Your task to perform on an android device: Open my contact list Image 0: 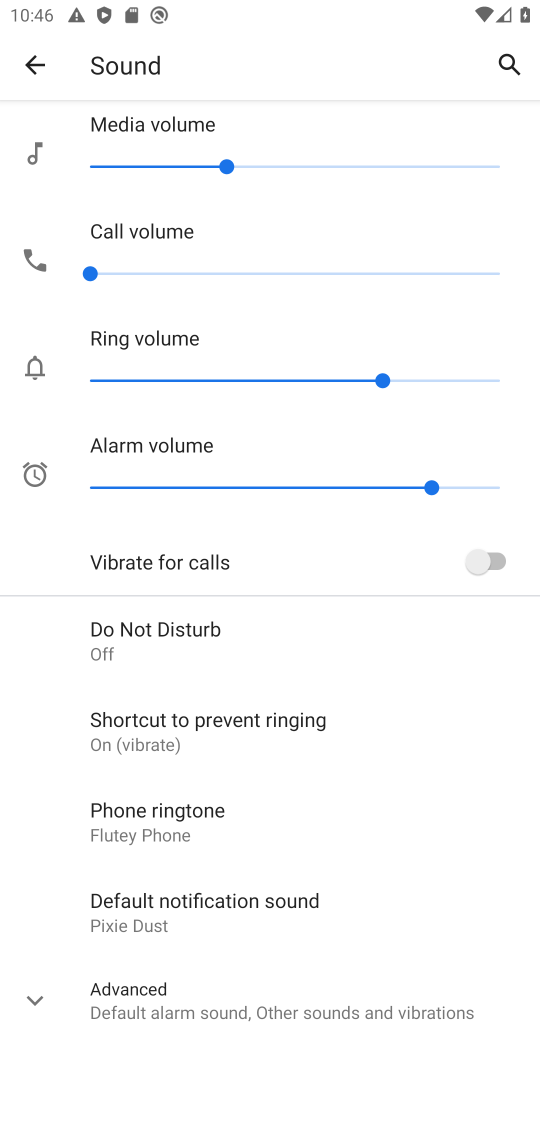
Step 0: press home button
Your task to perform on an android device: Open my contact list Image 1: 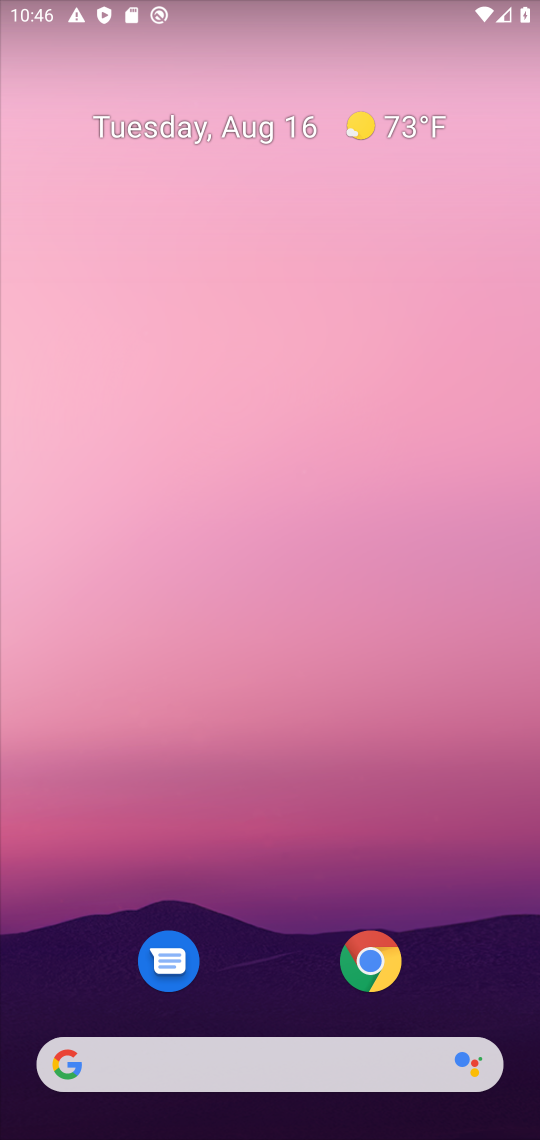
Step 1: drag from (302, 858) to (379, 234)
Your task to perform on an android device: Open my contact list Image 2: 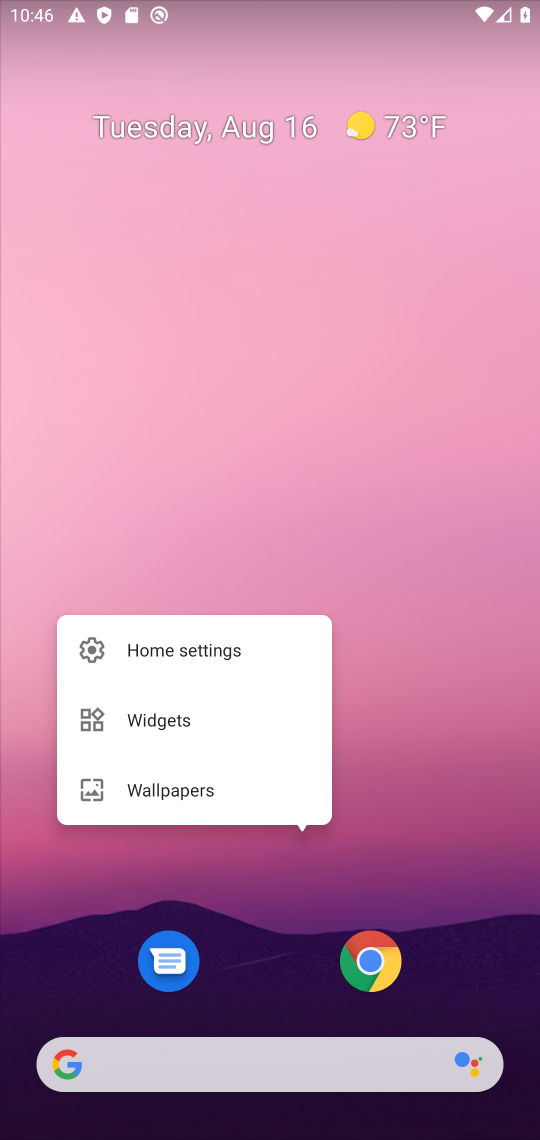
Step 2: click (373, 428)
Your task to perform on an android device: Open my contact list Image 3: 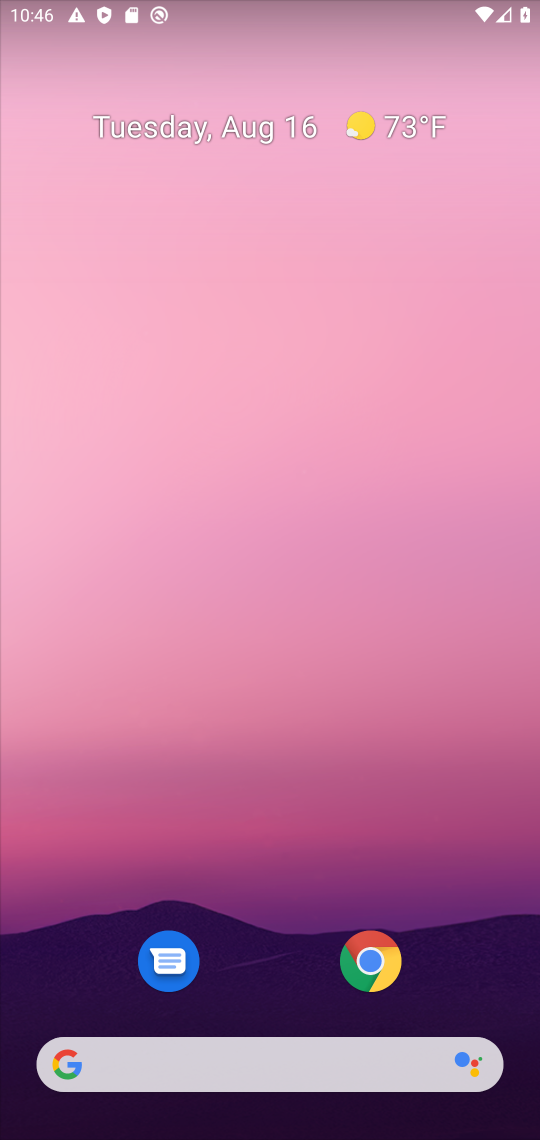
Step 3: drag from (242, 874) to (312, 433)
Your task to perform on an android device: Open my contact list Image 4: 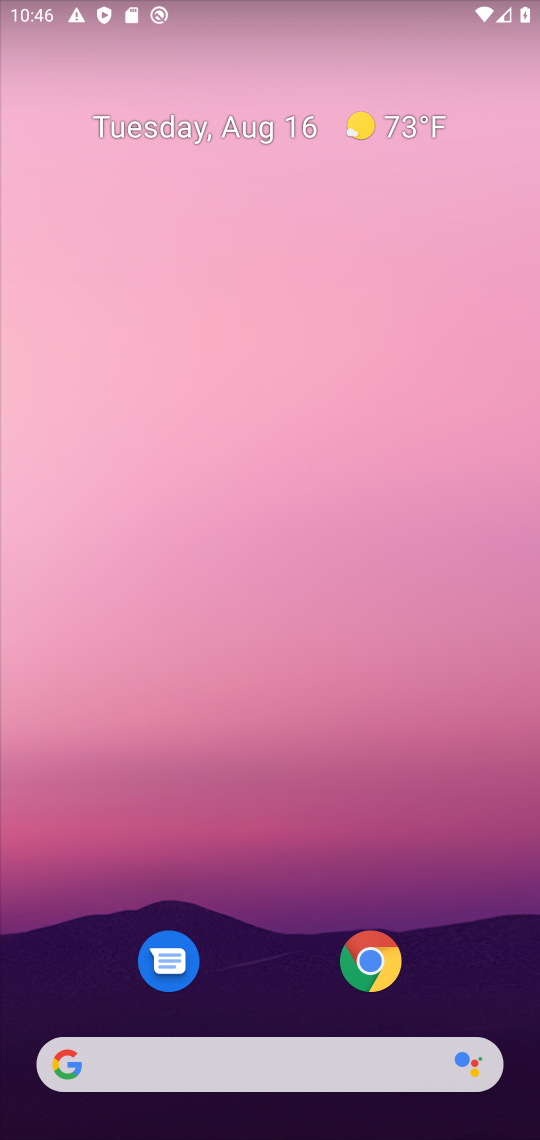
Step 4: drag from (283, 836) to (377, 212)
Your task to perform on an android device: Open my contact list Image 5: 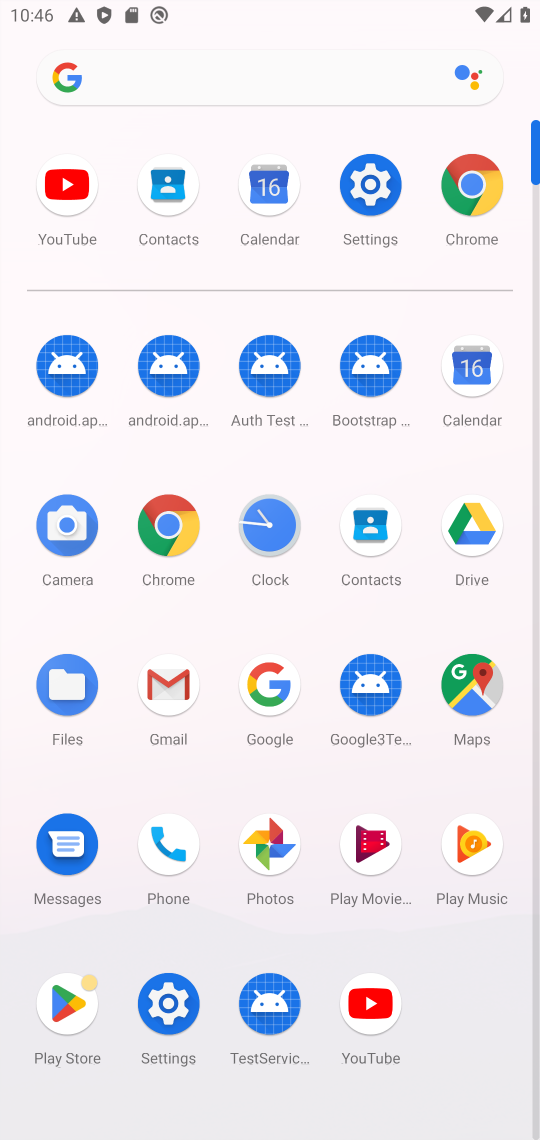
Step 5: click (379, 538)
Your task to perform on an android device: Open my contact list Image 6: 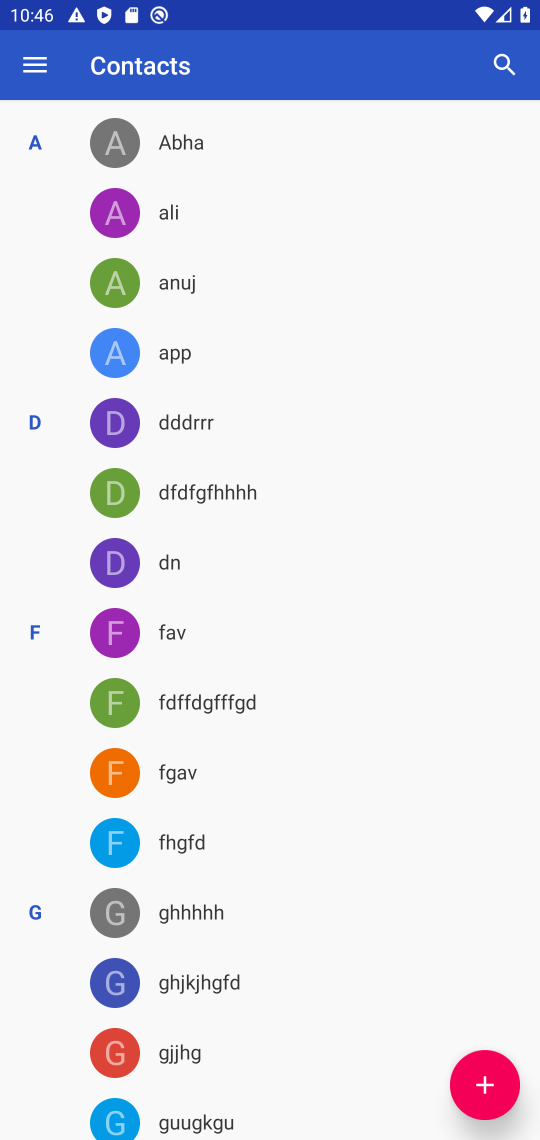
Step 6: task complete